Your task to perform on an android device: choose inbox layout in the gmail app Image 0: 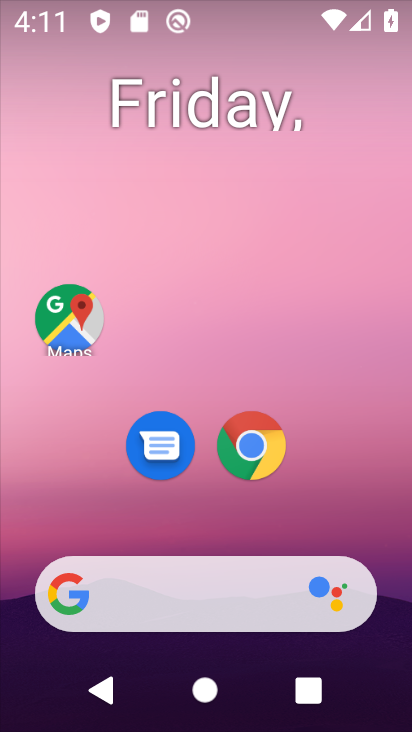
Step 0: drag from (335, 476) to (273, 104)
Your task to perform on an android device: choose inbox layout in the gmail app Image 1: 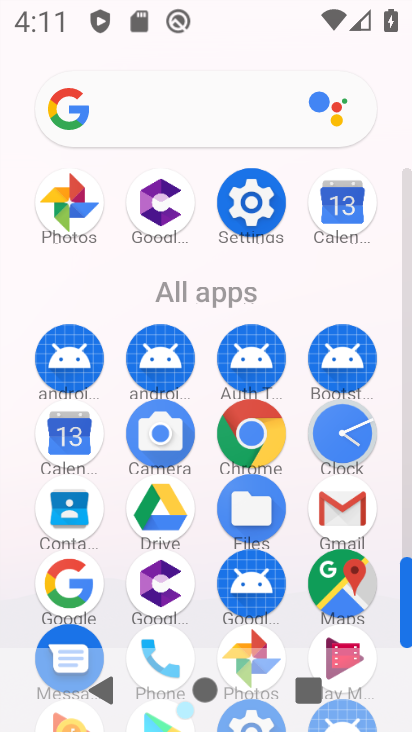
Step 1: click (349, 506)
Your task to perform on an android device: choose inbox layout in the gmail app Image 2: 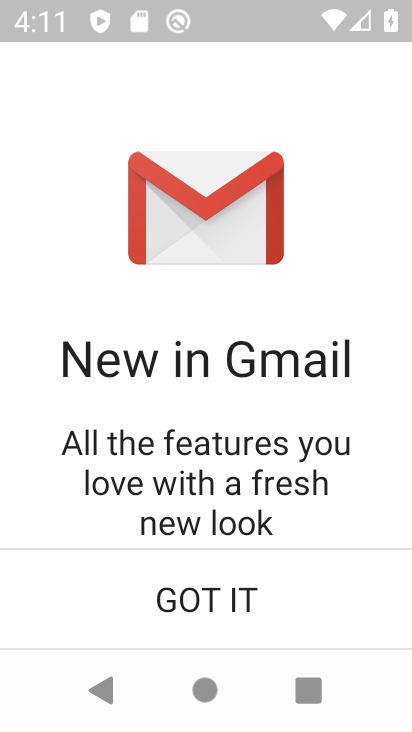
Step 2: click (214, 611)
Your task to perform on an android device: choose inbox layout in the gmail app Image 3: 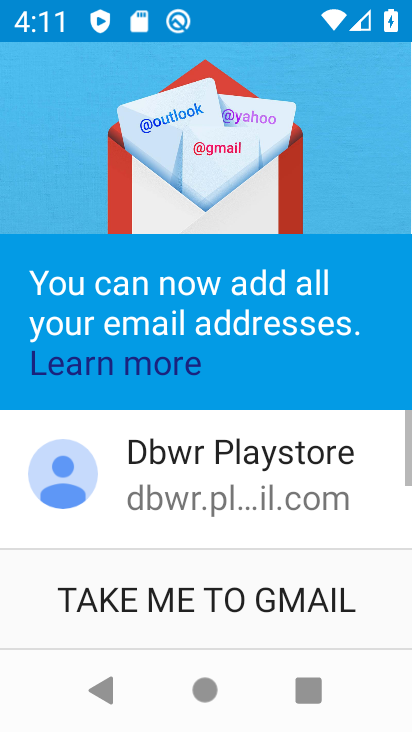
Step 3: click (204, 584)
Your task to perform on an android device: choose inbox layout in the gmail app Image 4: 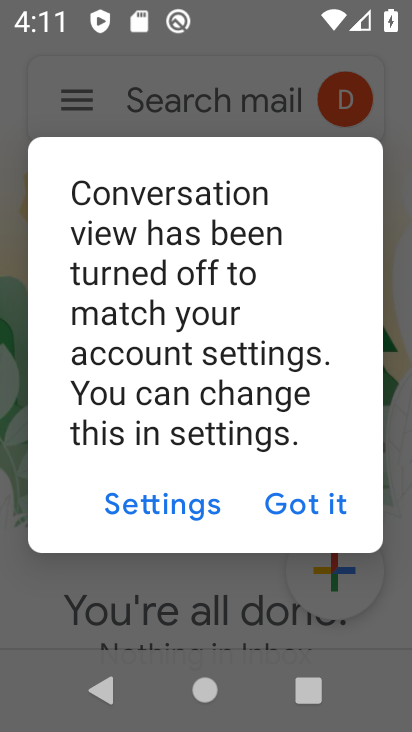
Step 4: click (287, 499)
Your task to perform on an android device: choose inbox layout in the gmail app Image 5: 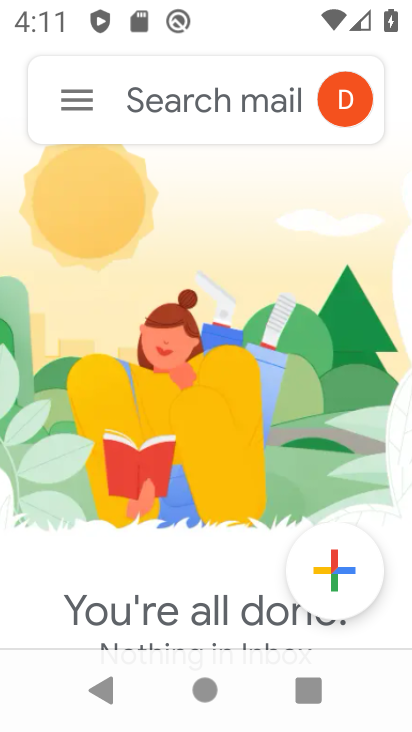
Step 5: click (66, 91)
Your task to perform on an android device: choose inbox layout in the gmail app Image 6: 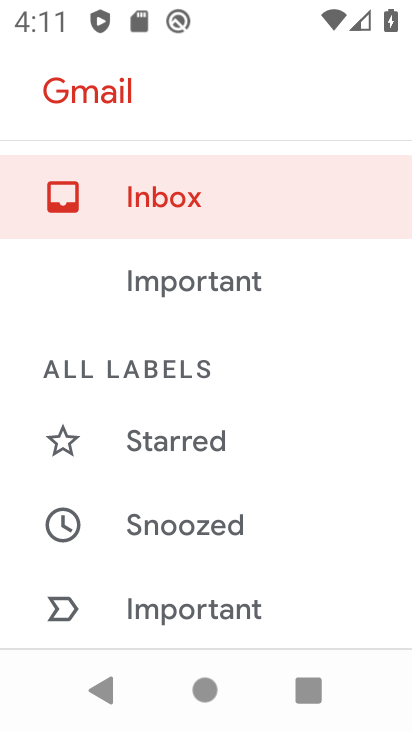
Step 6: drag from (160, 572) to (187, 176)
Your task to perform on an android device: choose inbox layout in the gmail app Image 7: 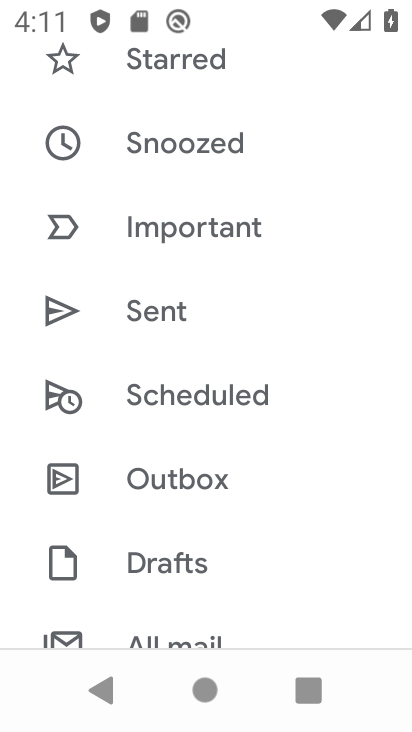
Step 7: drag from (171, 546) to (229, 188)
Your task to perform on an android device: choose inbox layout in the gmail app Image 8: 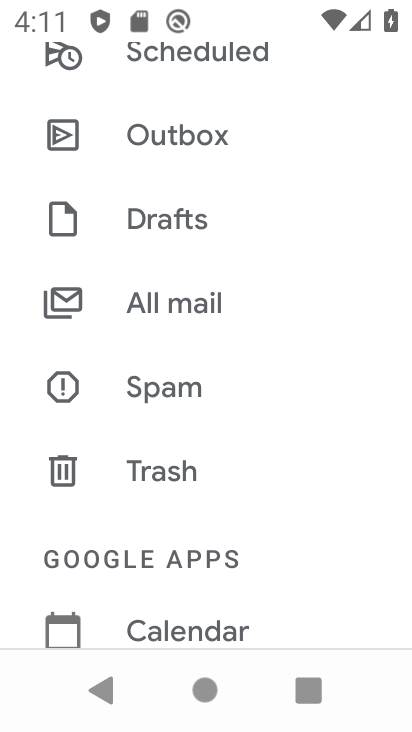
Step 8: drag from (188, 532) to (241, 173)
Your task to perform on an android device: choose inbox layout in the gmail app Image 9: 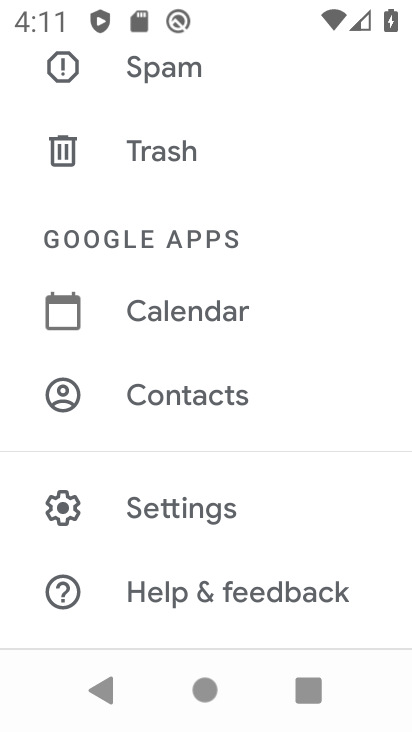
Step 9: click (202, 506)
Your task to perform on an android device: choose inbox layout in the gmail app Image 10: 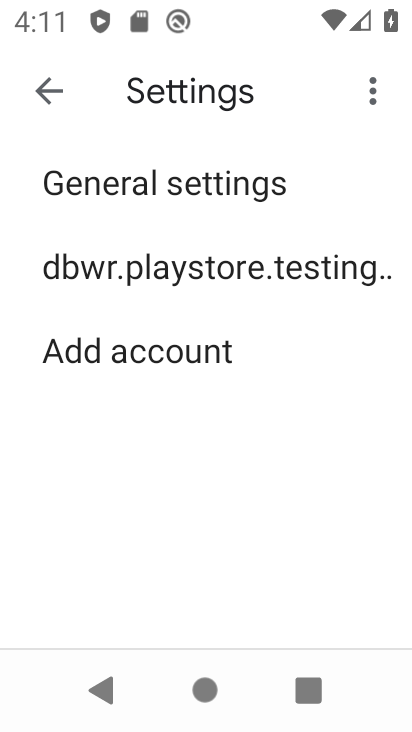
Step 10: click (195, 271)
Your task to perform on an android device: choose inbox layout in the gmail app Image 11: 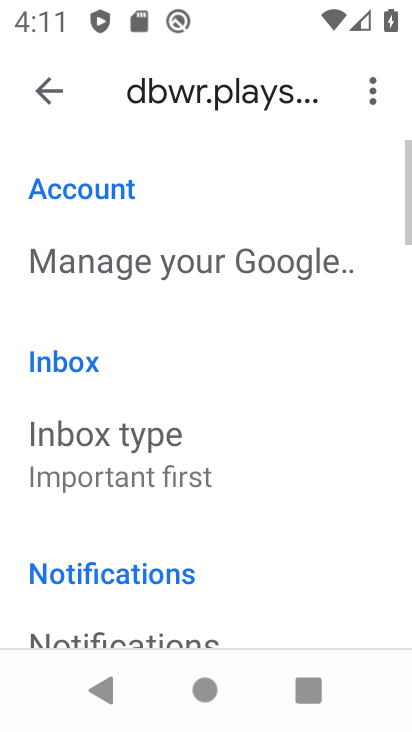
Step 11: click (104, 451)
Your task to perform on an android device: choose inbox layout in the gmail app Image 12: 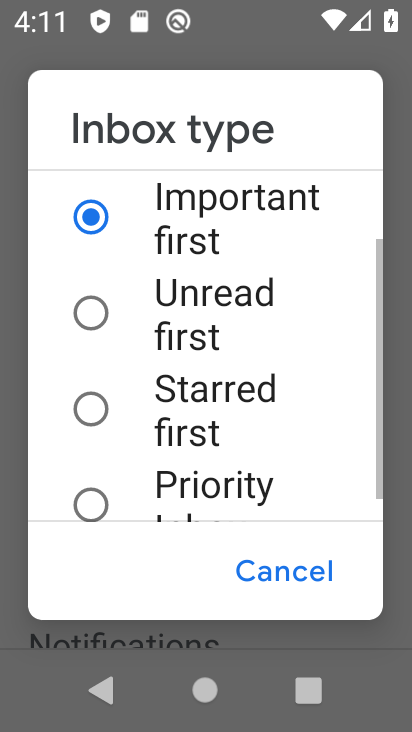
Step 12: task complete